Your task to perform on an android device: How much does a 2 bedroom apartment rent for in Atlanta? Image 0: 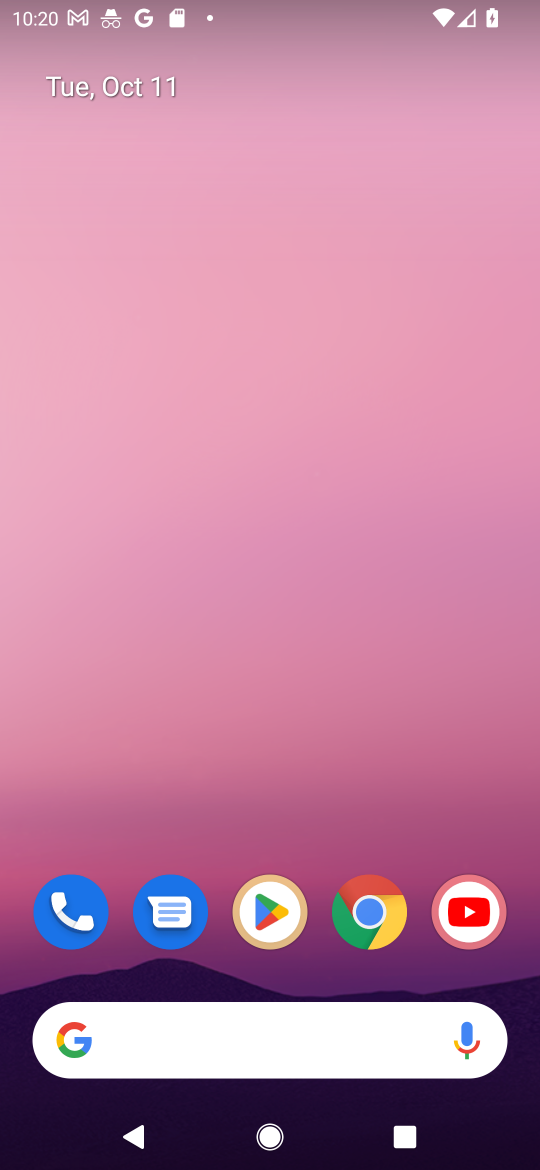
Step 0: click (363, 916)
Your task to perform on an android device: How much does a 2 bedroom apartment rent for in Atlanta? Image 1: 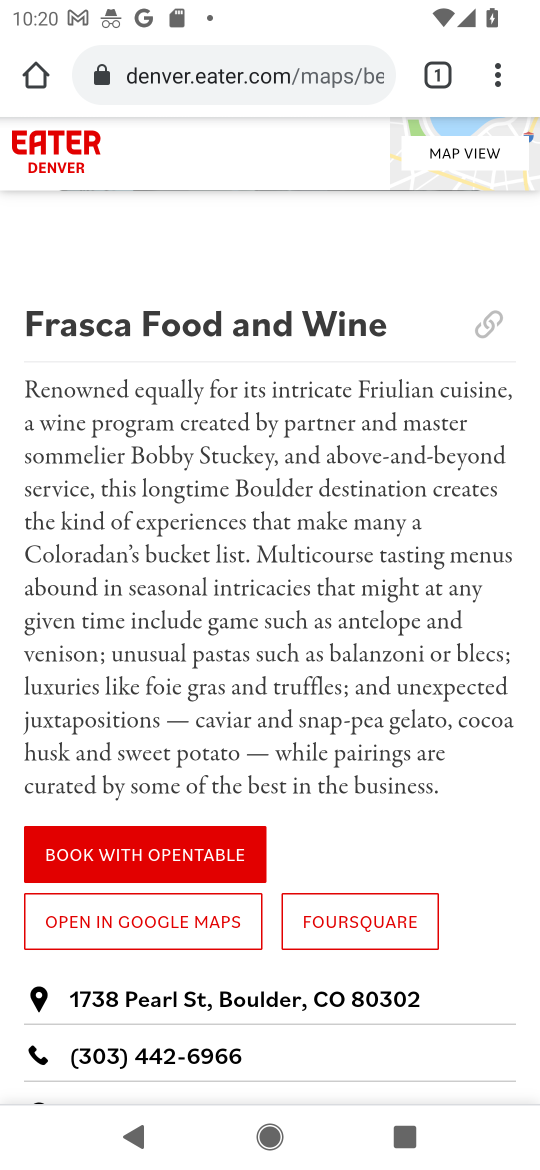
Step 1: click (230, 47)
Your task to perform on an android device: How much does a 2 bedroom apartment rent for in Atlanta? Image 2: 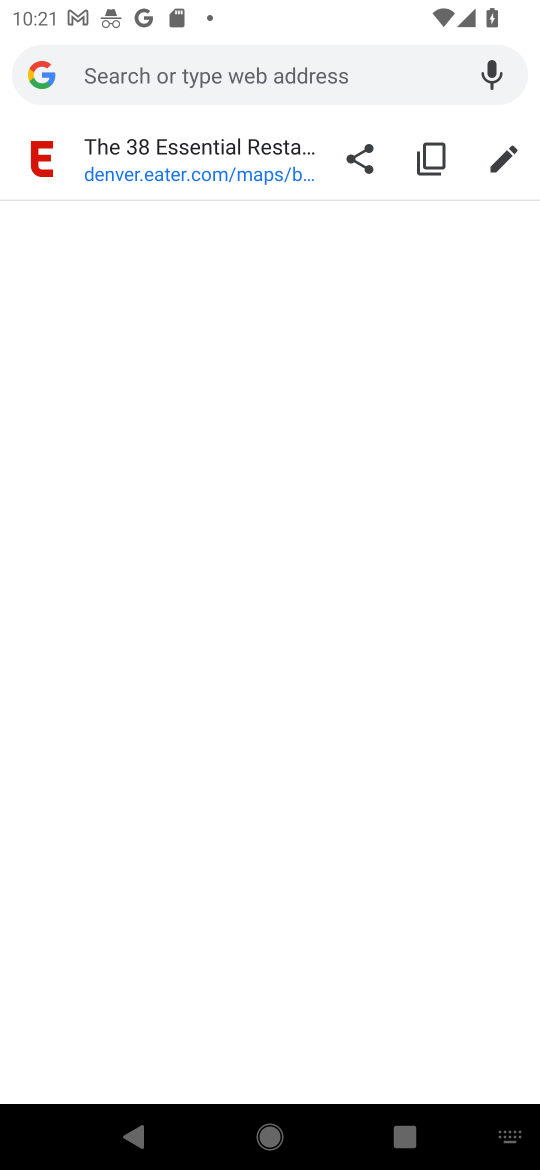
Step 2: type " 2 bedroom apartment rent for in Atlanta"
Your task to perform on an android device: How much does a 2 bedroom apartment rent for in Atlanta? Image 3: 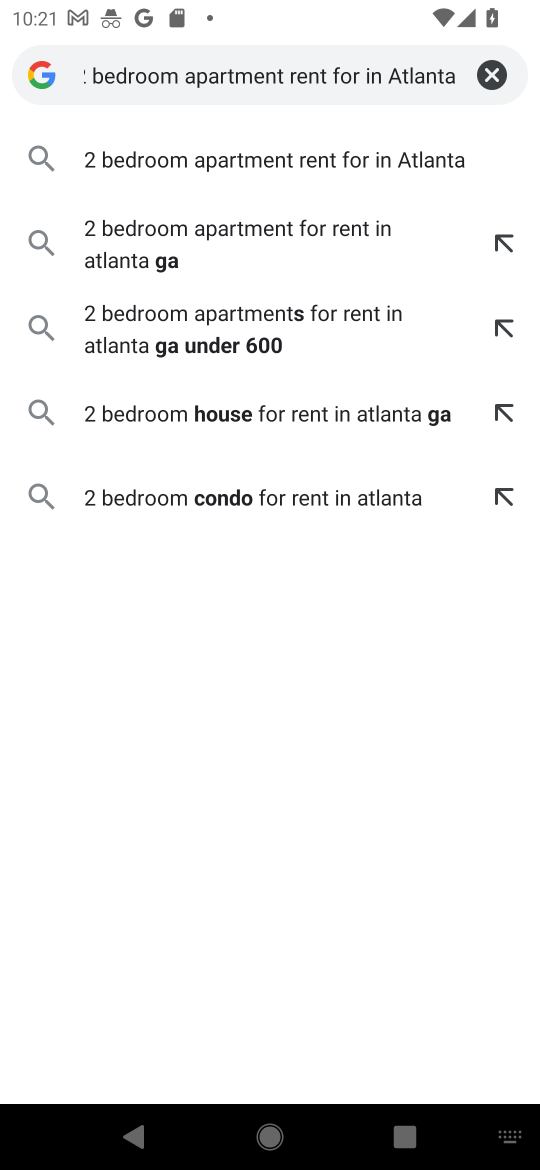
Step 3: click (168, 142)
Your task to perform on an android device: How much does a 2 bedroom apartment rent for in Atlanta? Image 4: 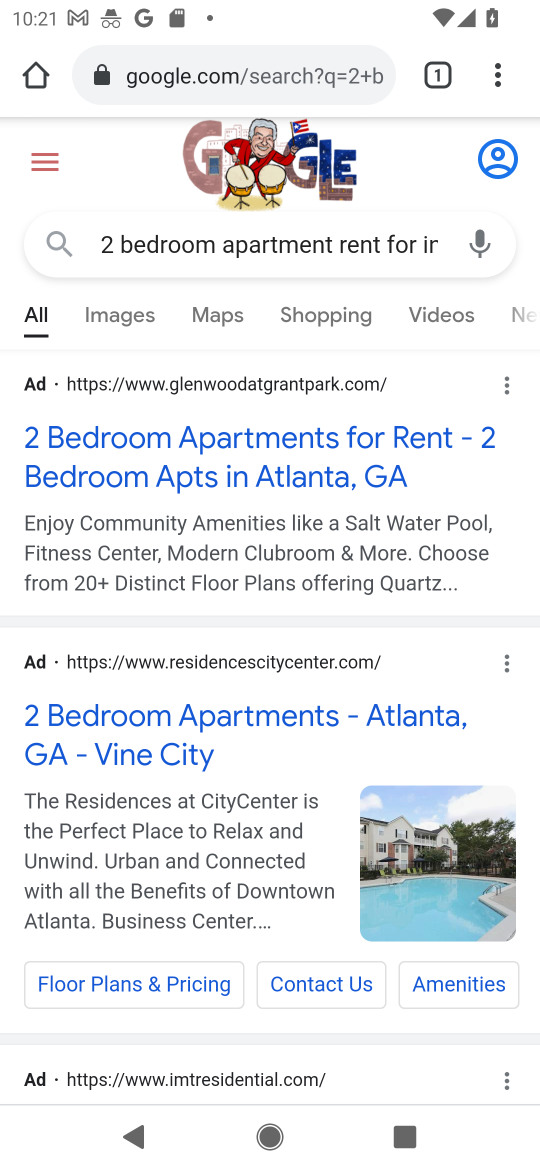
Step 4: click (196, 454)
Your task to perform on an android device: How much does a 2 bedroom apartment rent for in Atlanta? Image 5: 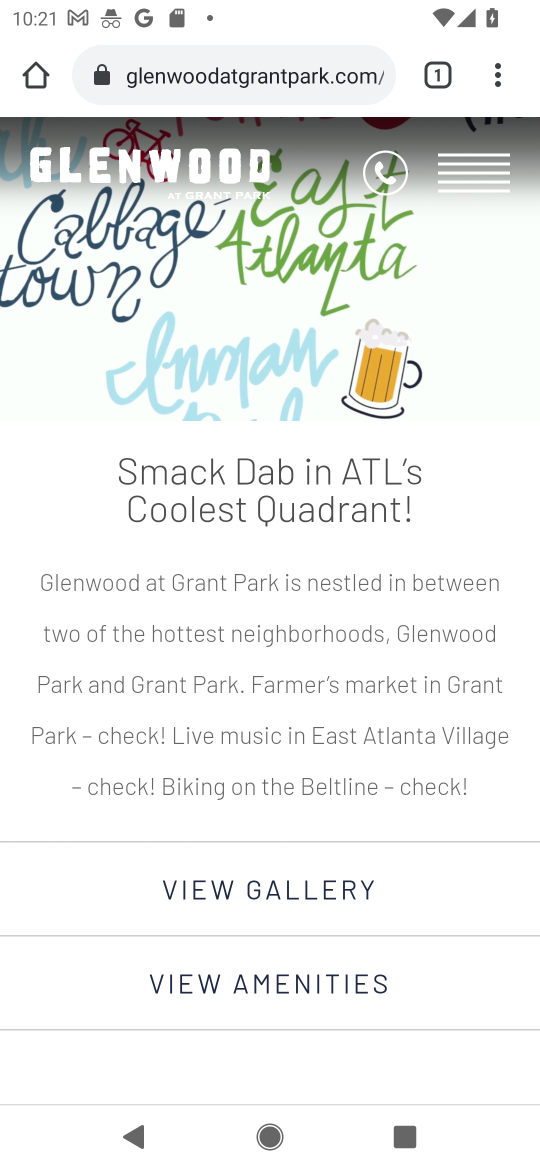
Step 5: drag from (304, 839) to (293, 343)
Your task to perform on an android device: How much does a 2 bedroom apartment rent for in Atlanta? Image 6: 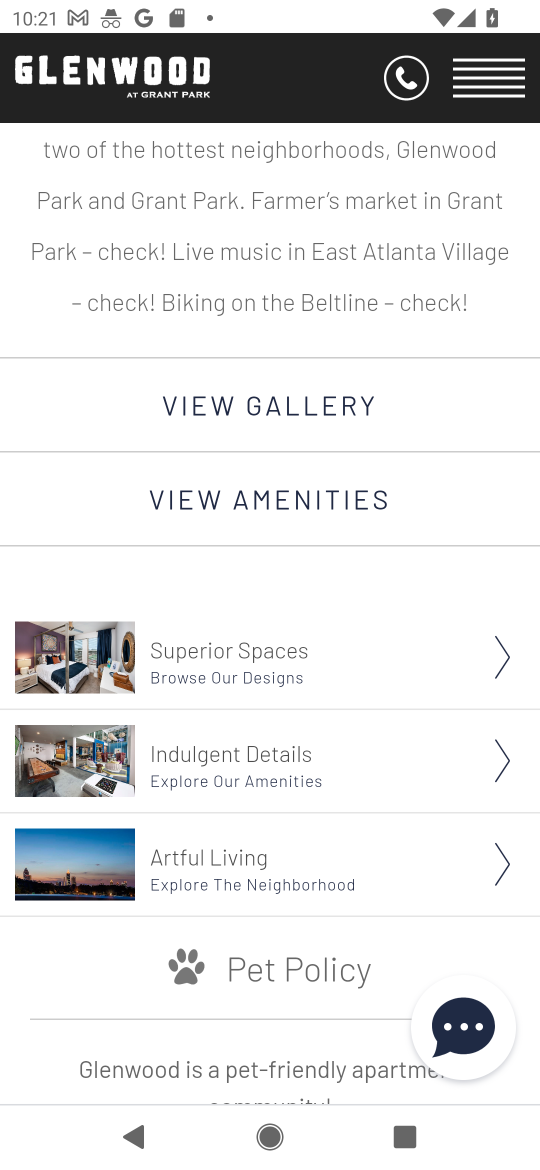
Step 6: drag from (321, 607) to (313, 137)
Your task to perform on an android device: How much does a 2 bedroom apartment rent for in Atlanta? Image 7: 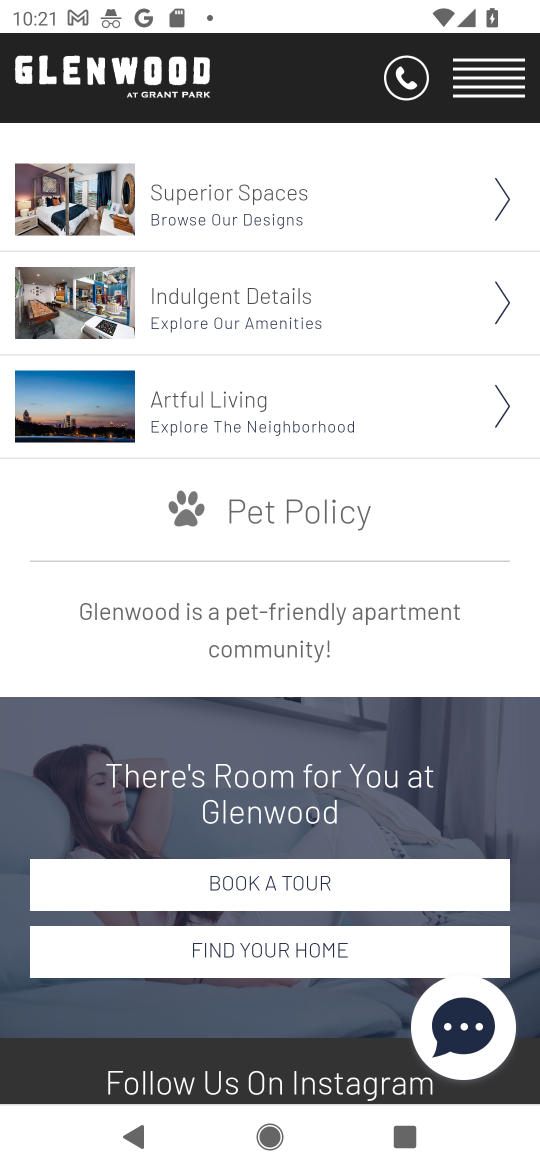
Step 7: press back button
Your task to perform on an android device: How much does a 2 bedroom apartment rent for in Atlanta? Image 8: 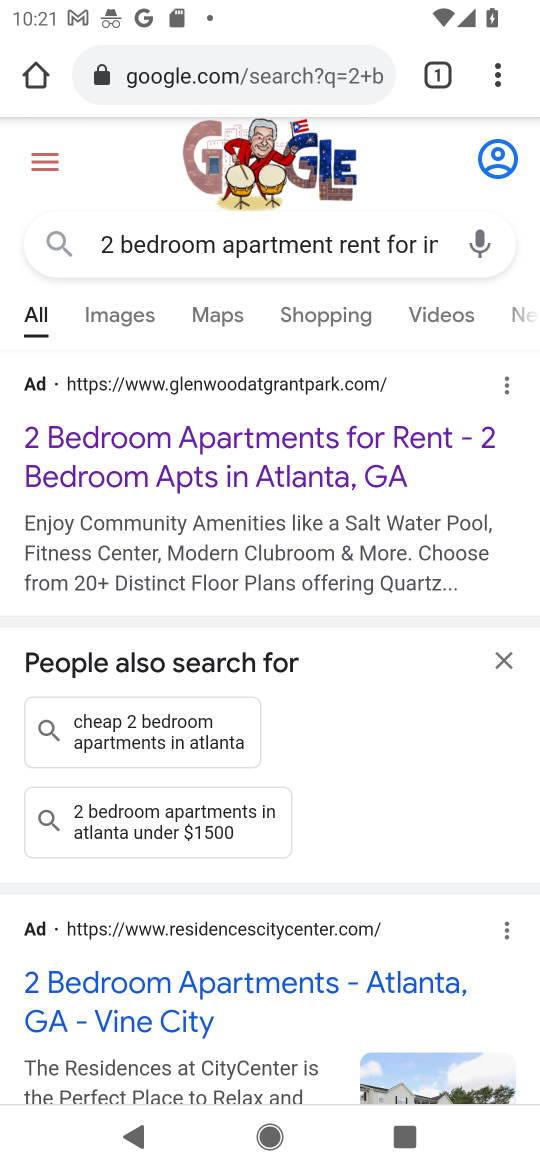
Step 8: drag from (288, 860) to (264, 275)
Your task to perform on an android device: How much does a 2 bedroom apartment rent for in Atlanta? Image 9: 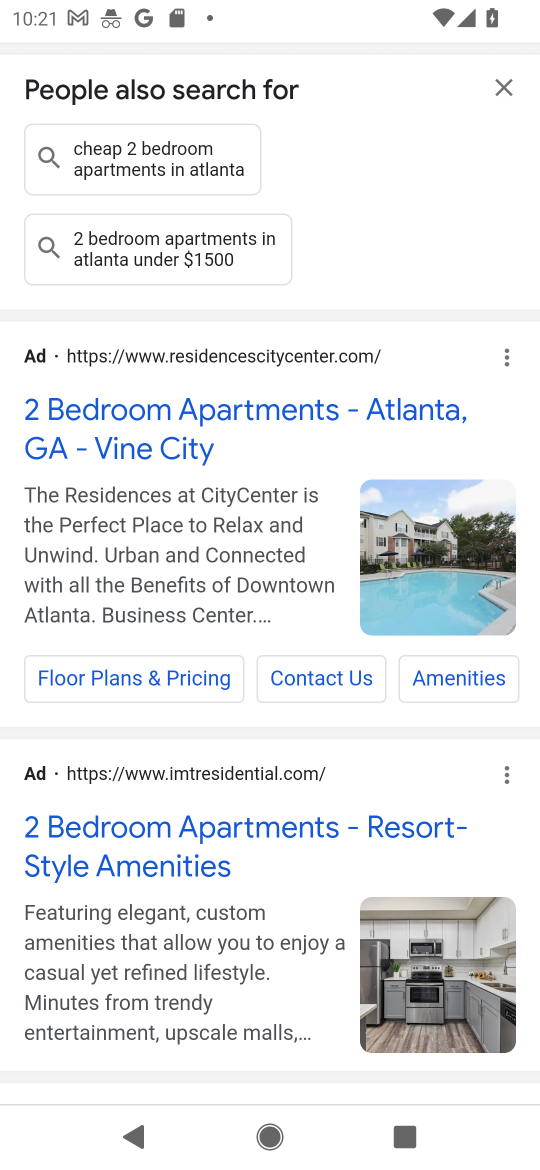
Step 9: click (107, 417)
Your task to perform on an android device: How much does a 2 bedroom apartment rent for in Atlanta? Image 10: 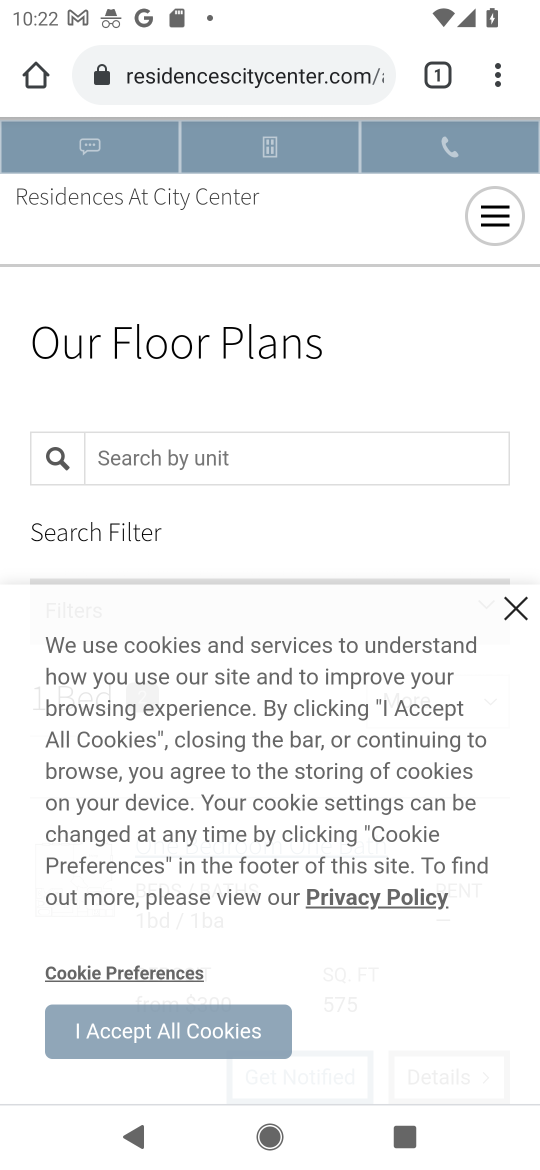
Step 10: click (512, 603)
Your task to perform on an android device: How much does a 2 bedroom apartment rent for in Atlanta? Image 11: 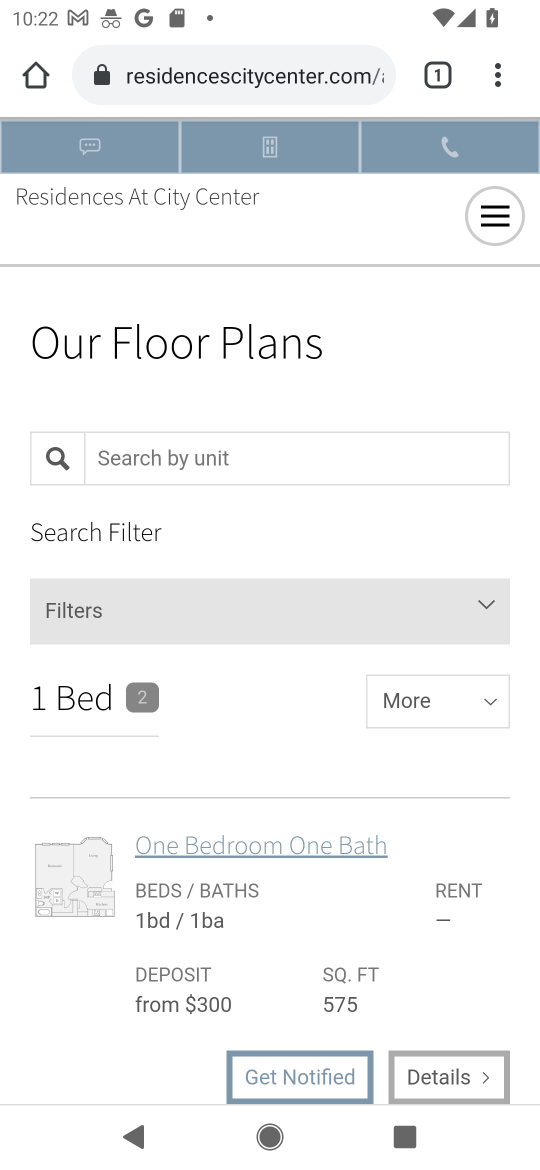
Step 11: task complete